Your task to perform on an android device: turn smart compose on in the gmail app Image 0: 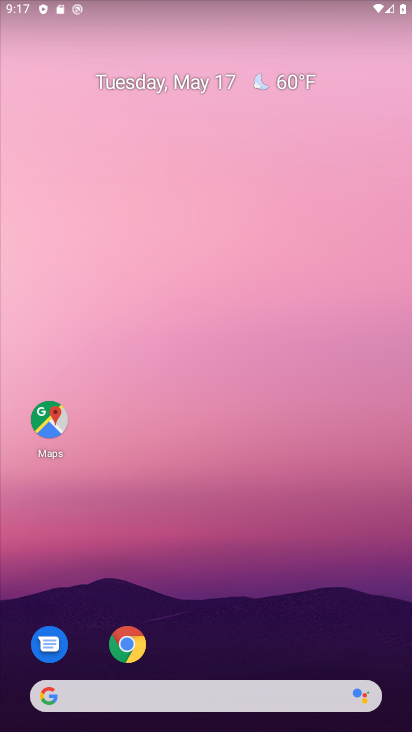
Step 0: drag from (243, 555) to (253, 95)
Your task to perform on an android device: turn smart compose on in the gmail app Image 1: 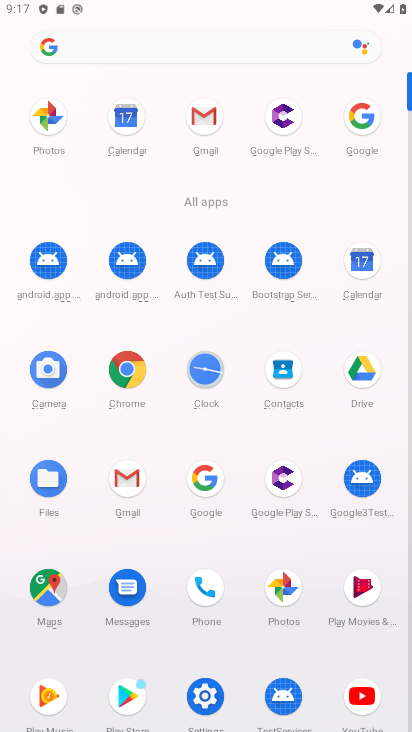
Step 1: click (133, 474)
Your task to perform on an android device: turn smart compose on in the gmail app Image 2: 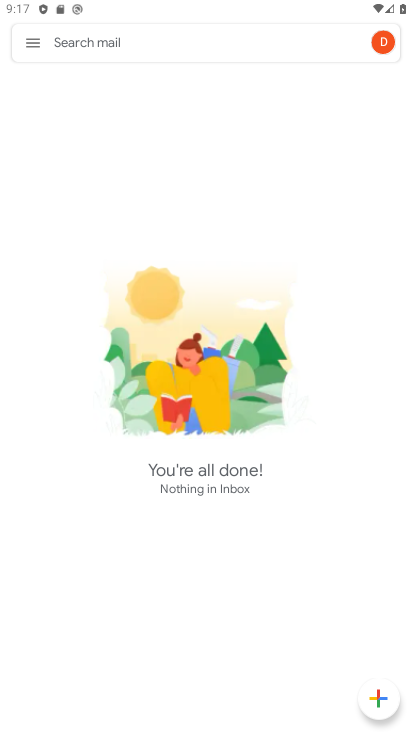
Step 2: click (32, 49)
Your task to perform on an android device: turn smart compose on in the gmail app Image 3: 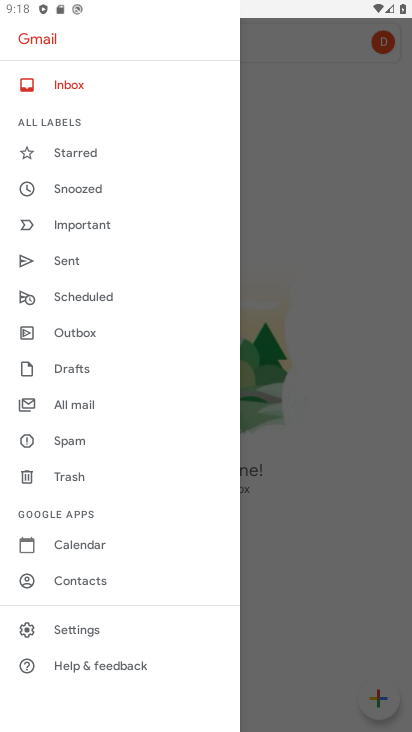
Step 3: click (99, 627)
Your task to perform on an android device: turn smart compose on in the gmail app Image 4: 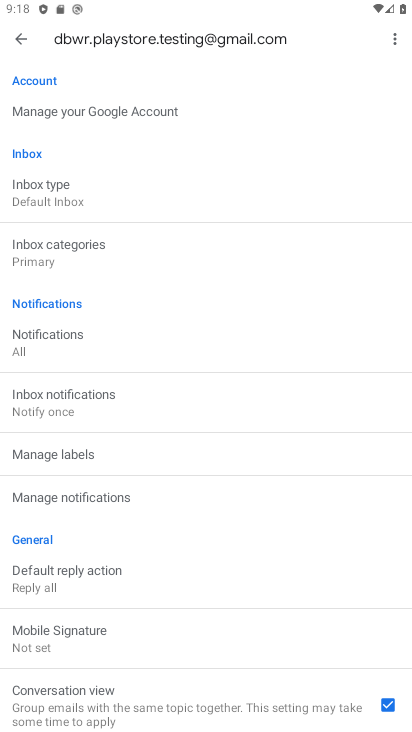
Step 4: task complete